Your task to perform on an android device: Search for "usb-c to usb-b" on costco, select the first entry, add it to the cart, then select checkout. Image 0: 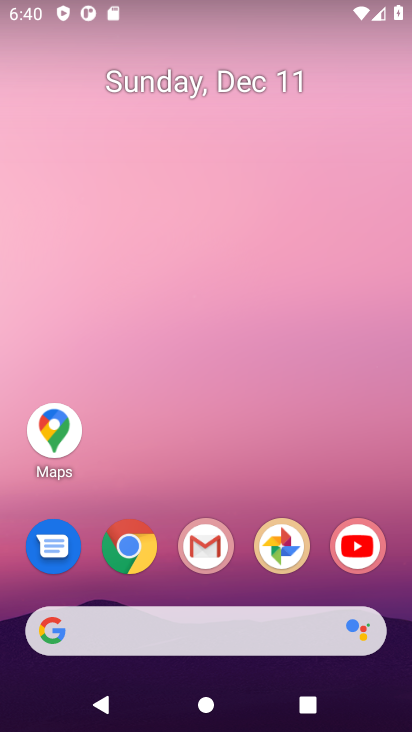
Step 0: click (130, 550)
Your task to perform on an android device: Search for "usb-c to usb-b" on costco, select the first entry, add it to the cart, then select checkout. Image 1: 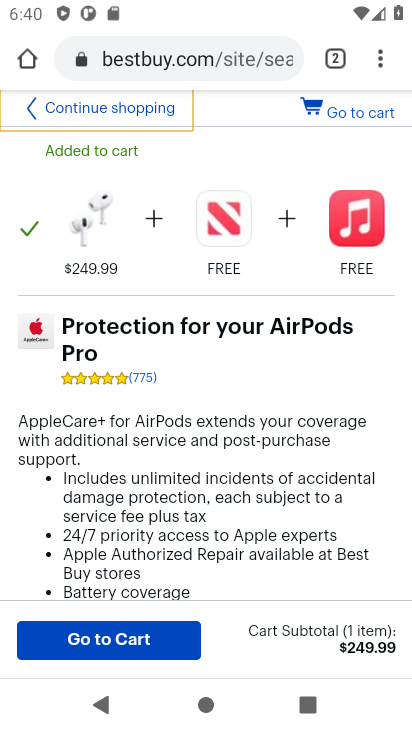
Step 1: click (169, 61)
Your task to perform on an android device: Search for "usb-c to usb-b" on costco, select the first entry, add it to the cart, then select checkout. Image 2: 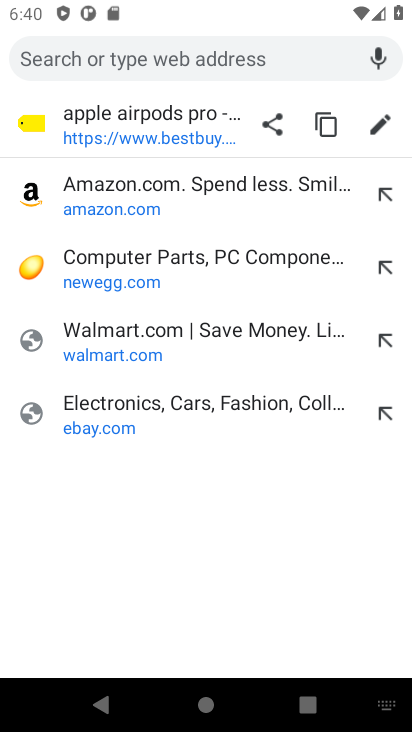
Step 2: type "costco.com"
Your task to perform on an android device: Search for "usb-c to usb-b" on costco, select the first entry, add it to the cart, then select checkout. Image 3: 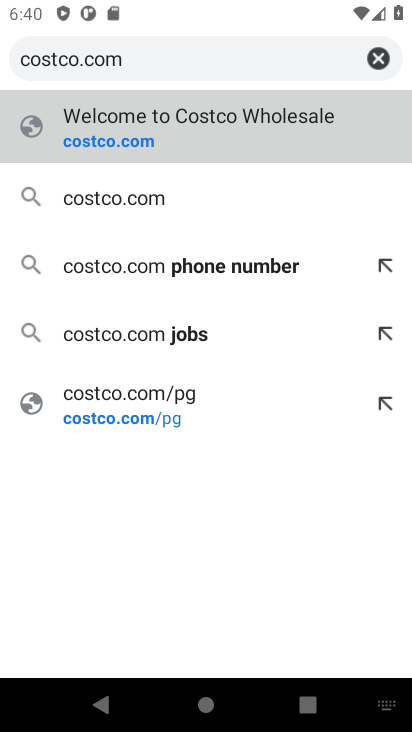
Step 3: click (108, 146)
Your task to perform on an android device: Search for "usb-c to usb-b" on costco, select the first entry, add it to the cart, then select checkout. Image 4: 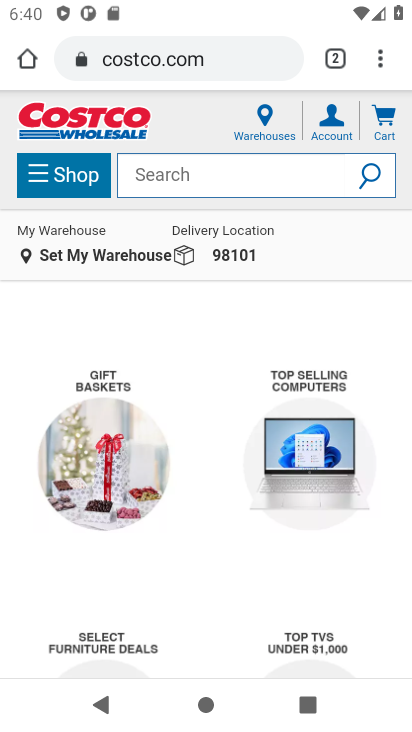
Step 4: click (200, 176)
Your task to perform on an android device: Search for "usb-c to usb-b" on costco, select the first entry, add it to the cart, then select checkout. Image 5: 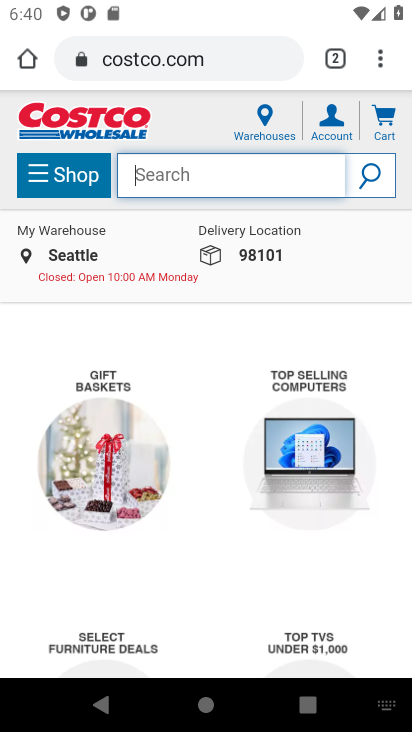
Step 5: type "usb-c to usb-b"
Your task to perform on an android device: Search for "usb-c to usb-b" on costco, select the first entry, add it to the cart, then select checkout. Image 6: 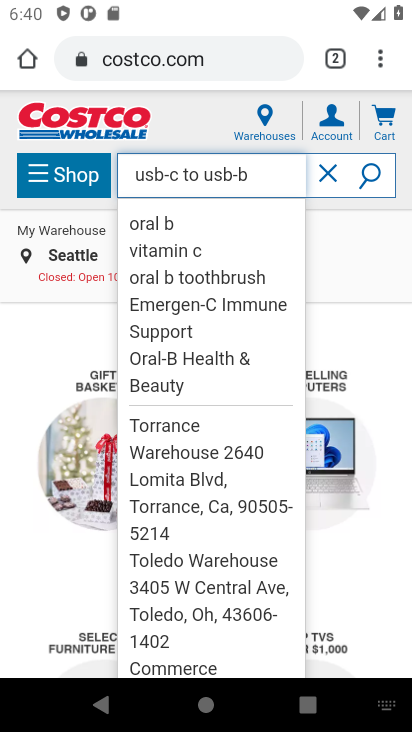
Step 6: click (369, 180)
Your task to perform on an android device: Search for "usb-c to usb-b" on costco, select the first entry, add it to the cart, then select checkout. Image 7: 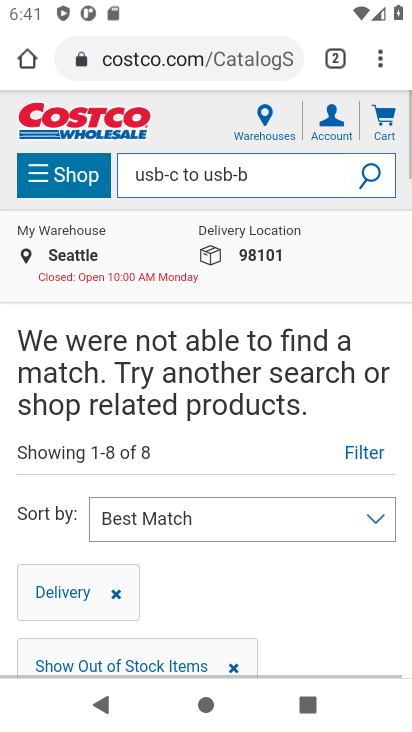
Step 7: task complete